Your task to perform on an android device: Empty the shopping cart on newegg. Add "razer blackwidow" to the cart on newegg, then select checkout. Image 0: 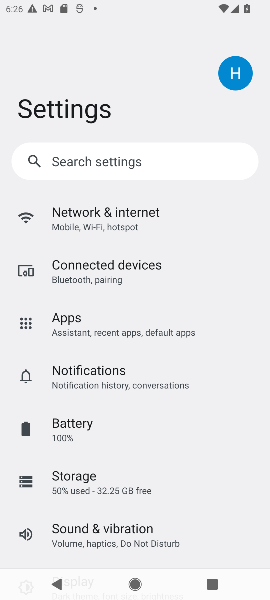
Step 0: press home button
Your task to perform on an android device: Empty the shopping cart on newegg. Add "razer blackwidow" to the cart on newegg, then select checkout. Image 1: 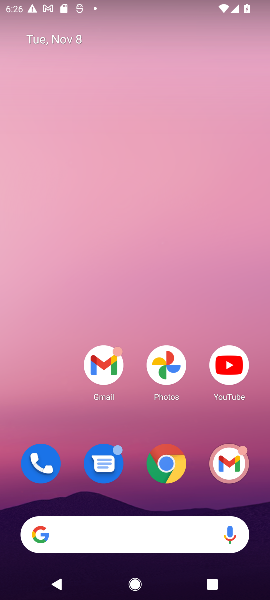
Step 1: click (175, 471)
Your task to perform on an android device: Empty the shopping cart on newegg. Add "razer blackwidow" to the cart on newegg, then select checkout. Image 2: 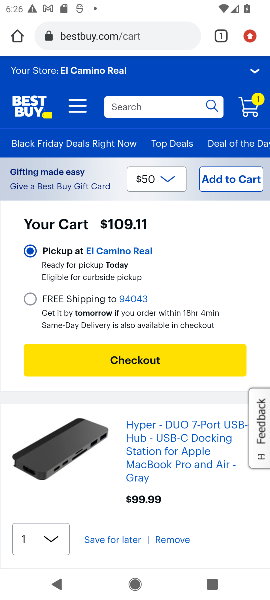
Step 2: click (155, 23)
Your task to perform on an android device: Empty the shopping cart on newegg. Add "razer blackwidow" to the cart on newegg, then select checkout. Image 3: 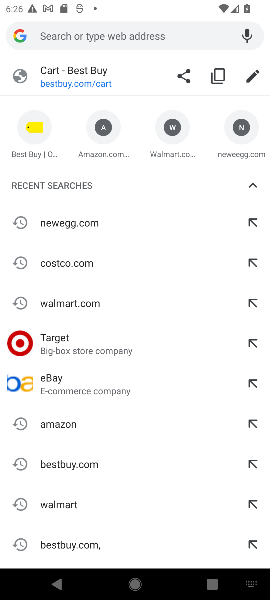
Step 3: click (74, 228)
Your task to perform on an android device: Empty the shopping cart on newegg. Add "razer blackwidow" to the cart on newegg, then select checkout. Image 4: 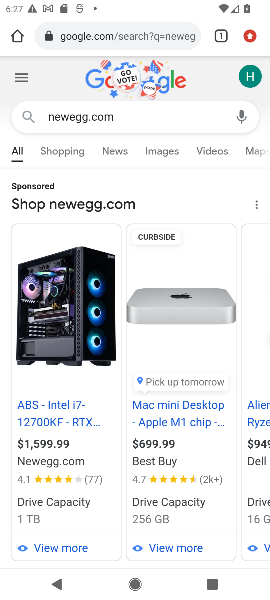
Step 4: drag from (166, 243) to (158, 172)
Your task to perform on an android device: Empty the shopping cart on newegg. Add "razer blackwidow" to the cart on newegg, then select checkout. Image 5: 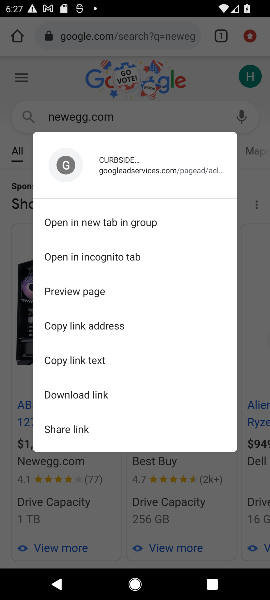
Step 5: click (134, 105)
Your task to perform on an android device: Empty the shopping cart on newegg. Add "razer blackwidow" to the cart on newegg, then select checkout. Image 6: 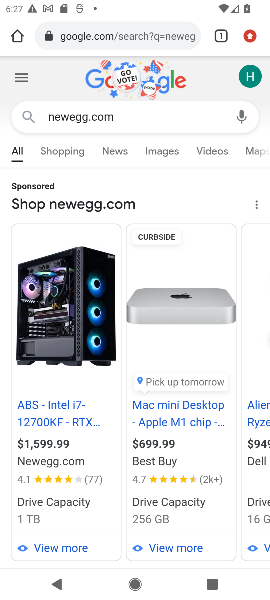
Step 6: drag from (147, 204) to (150, 22)
Your task to perform on an android device: Empty the shopping cart on newegg. Add "razer blackwidow" to the cart on newegg, then select checkout. Image 7: 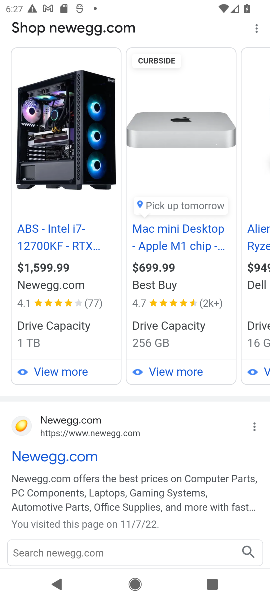
Step 7: click (63, 453)
Your task to perform on an android device: Empty the shopping cart on newegg. Add "razer blackwidow" to the cart on newegg, then select checkout. Image 8: 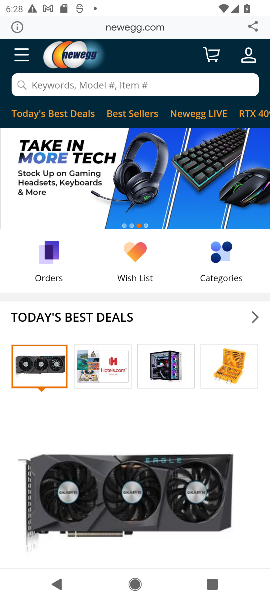
Step 8: click (99, 93)
Your task to perform on an android device: Empty the shopping cart on newegg. Add "razer blackwidow" to the cart on newegg, then select checkout. Image 9: 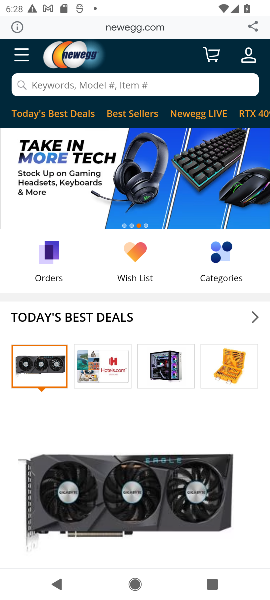
Step 9: click (93, 86)
Your task to perform on an android device: Empty the shopping cart on newegg. Add "razer blackwidow" to the cart on newegg, then select checkout. Image 10: 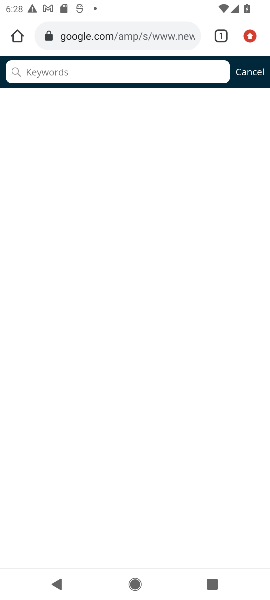
Step 10: click (93, 86)
Your task to perform on an android device: Empty the shopping cart on newegg. Add "razer blackwidow" to the cart on newegg, then select checkout. Image 11: 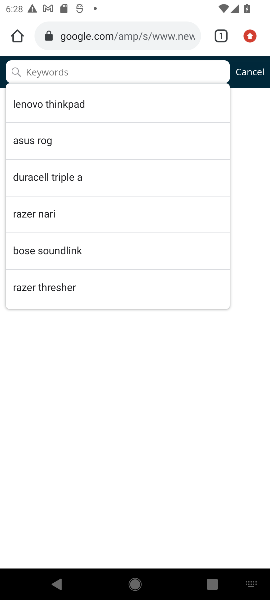
Step 11: type "razer backwidow"
Your task to perform on an android device: Empty the shopping cart on newegg. Add "razer blackwidow" to the cart on newegg, then select checkout. Image 12: 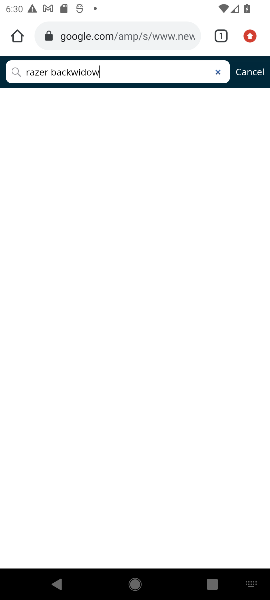
Step 12: task complete